Your task to perform on an android device: Open calendar and show me the second week of next month Image 0: 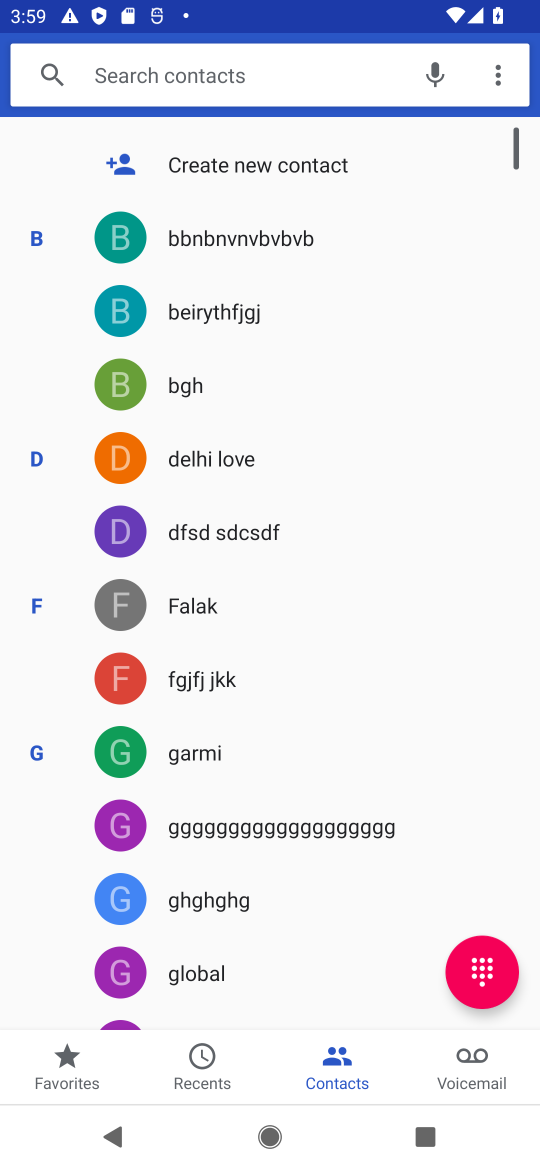
Step 0: press home button
Your task to perform on an android device: Open calendar and show me the second week of next month Image 1: 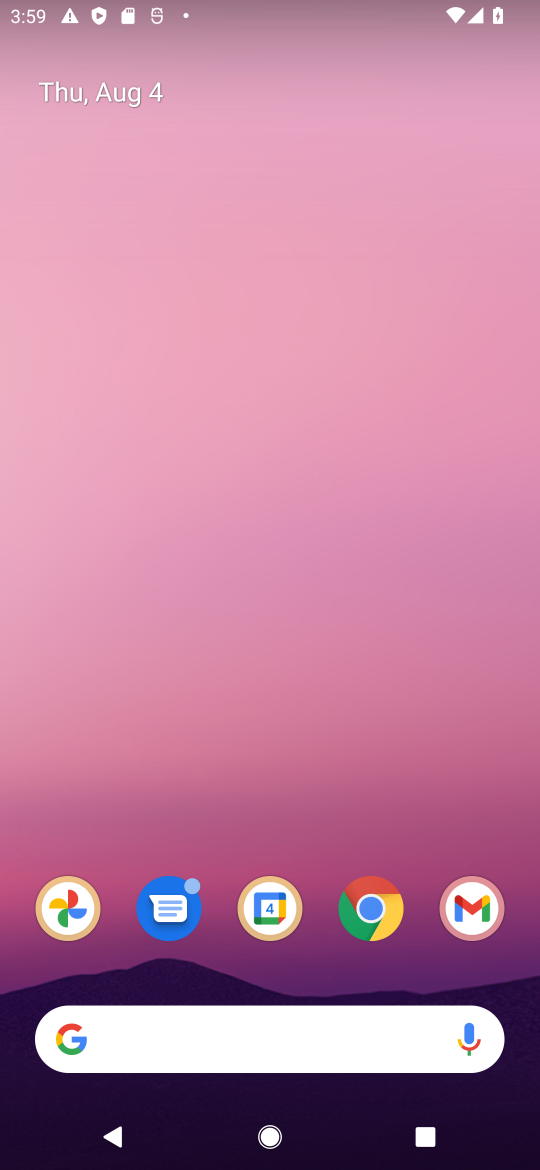
Step 1: drag from (138, 928) to (87, 158)
Your task to perform on an android device: Open calendar and show me the second week of next month Image 2: 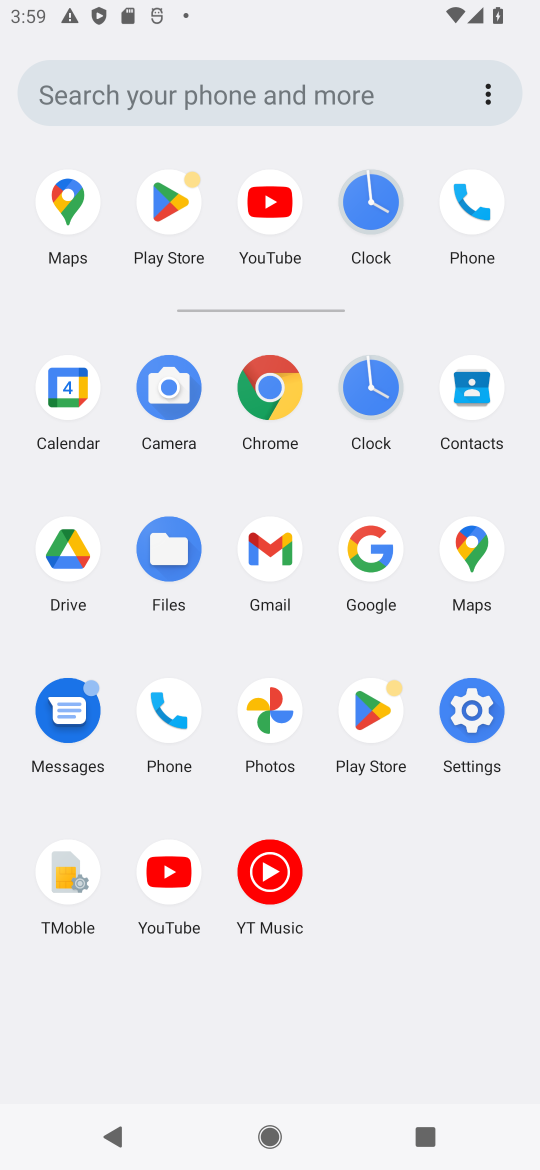
Step 2: click (62, 400)
Your task to perform on an android device: Open calendar and show me the second week of next month Image 3: 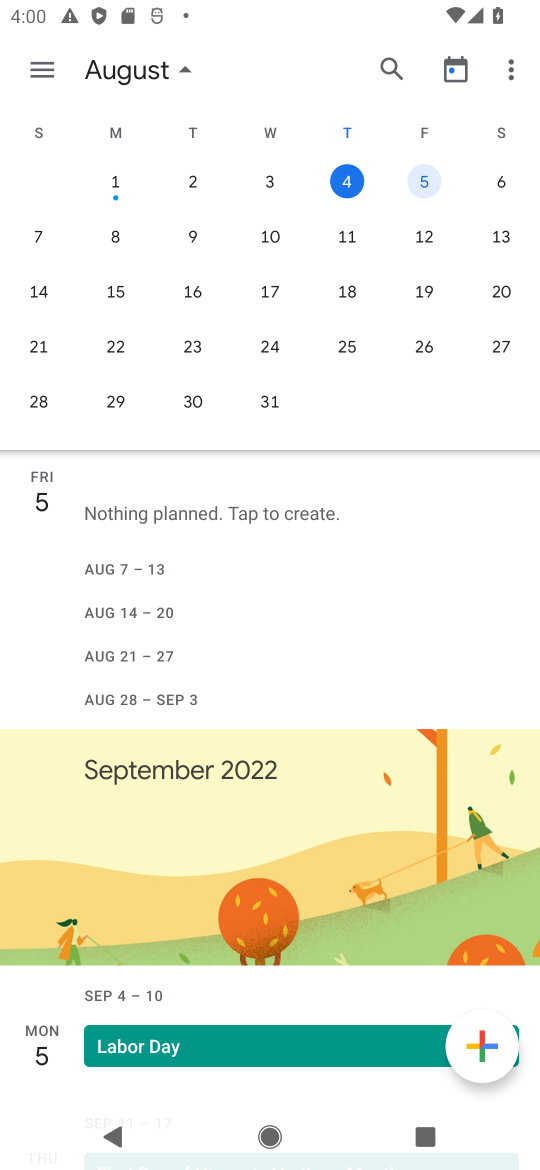
Step 3: drag from (427, 321) to (18, 301)
Your task to perform on an android device: Open calendar and show me the second week of next month Image 4: 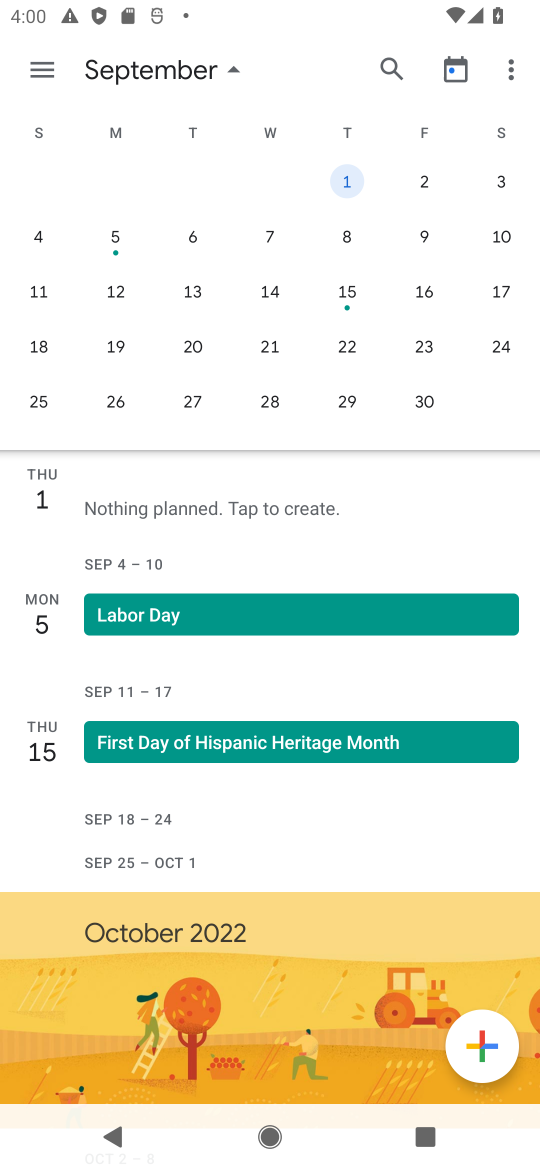
Step 4: click (279, 289)
Your task to perform on an android device: Open calendar and show me the second week of next month Image 5: 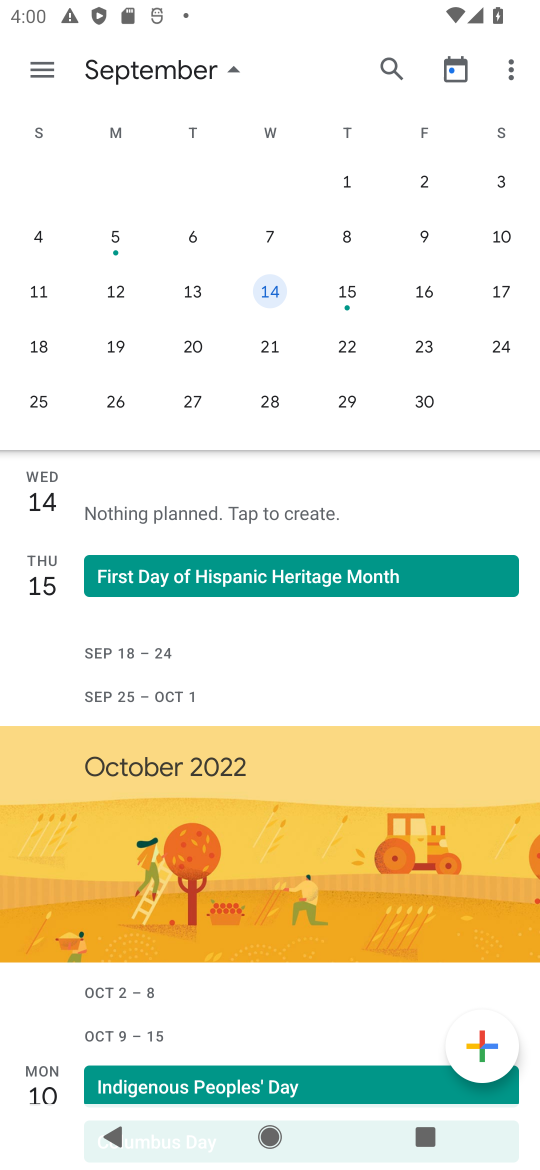
Step 5: task complete